Your task to perform on an android device: Open the Play Movies app and select the watchlist tab. Image 0: 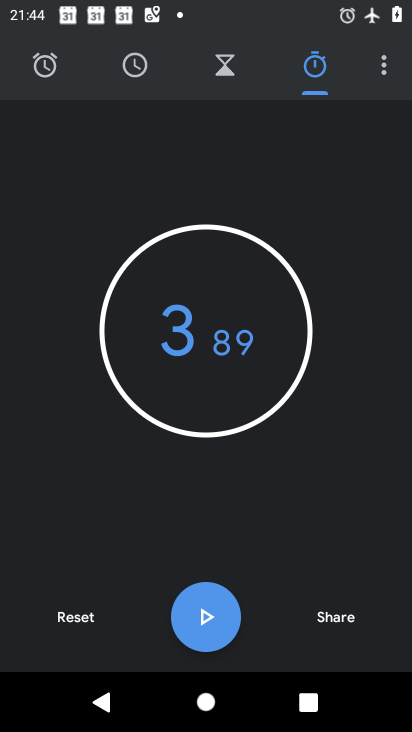
Step 0: press home button
Your task to perform on an android device: Open the Play Movies app and select the watchlist tab. Image 1: 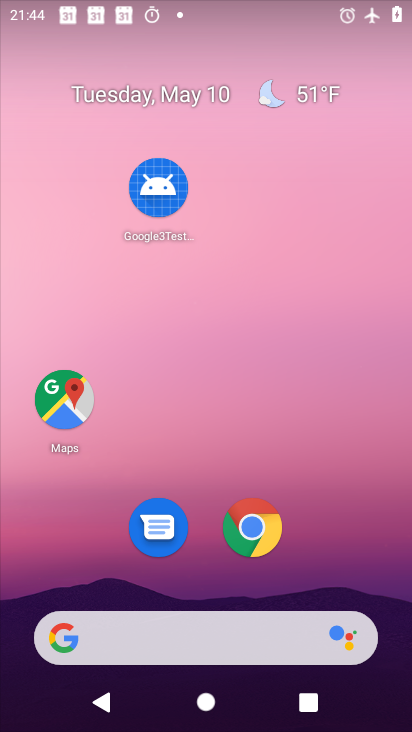
Step 1: drag from (161, 583) to (79, 12)
Your task to perform on an android device: Open the Play Movies app and select the watchlist tab. Image 2: 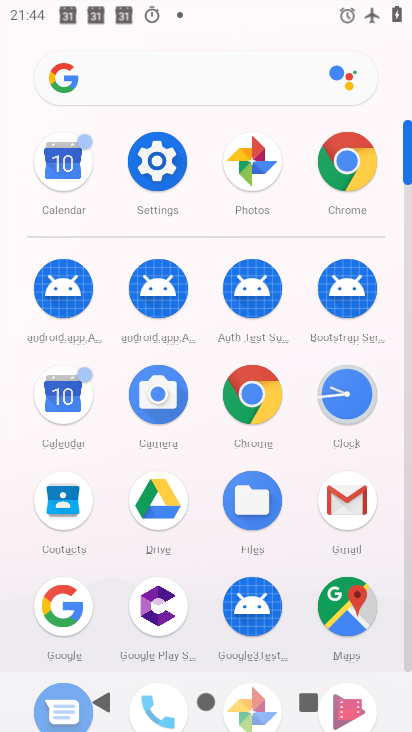
Step 2: drag from (296, 568) to (293, 318)
Your task to perform on an android device: Open the Play Movies app and select the watchlist tab. Image 3: 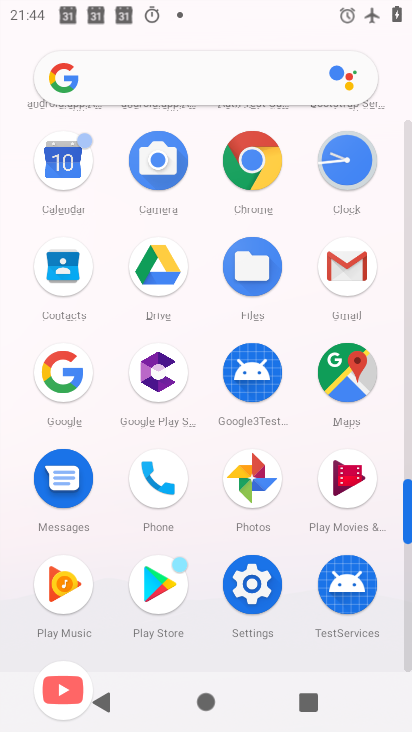
Step 3: click (360, 486)
Your task to perform on an android device: Open the Play Movies app and select the watchlist tab. Image 4: 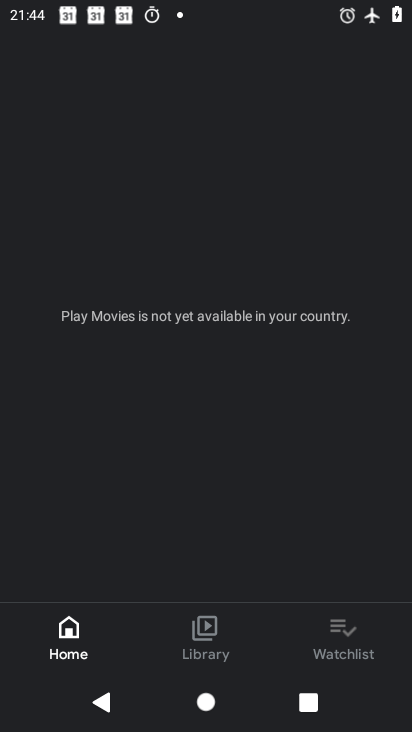
Step 4: click (347, 640)
Your task to perform on an android device: Open the Play Movies app and select the watchlist tab. Image 5: 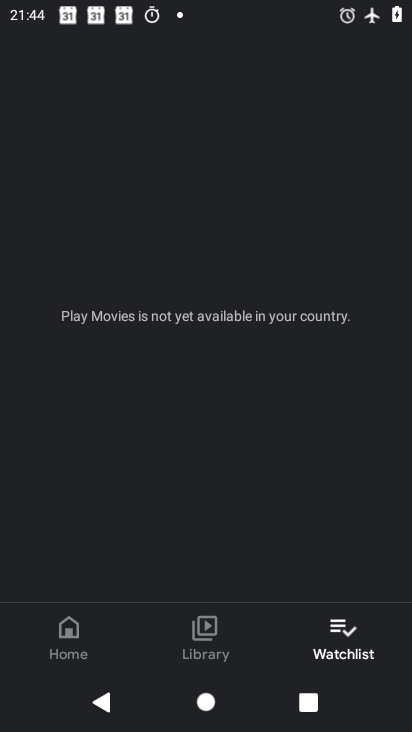
Step 5: task complete